Your task to perform on an android device: See recent photos Image 0: 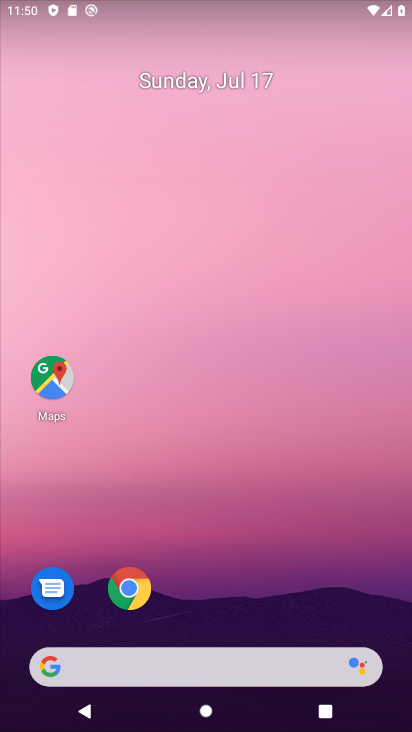
Step 0: drag from (248, 725) to (262, 109)
Your task to perform on an android device: See recent photos Image 1: 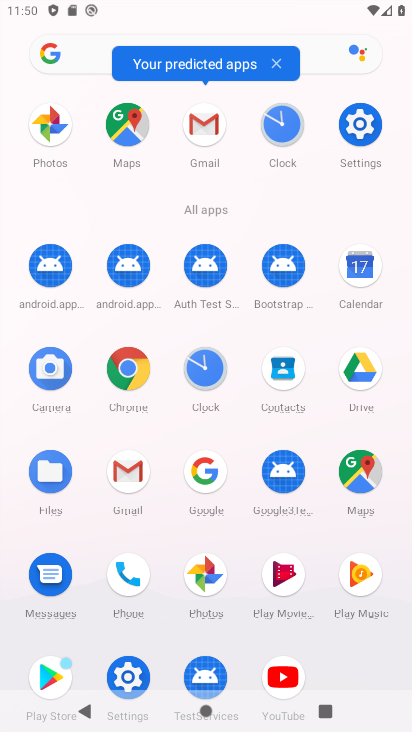
Step 1: click (207, 571)
Your task to perform on an android device: See recent photos Image 2: 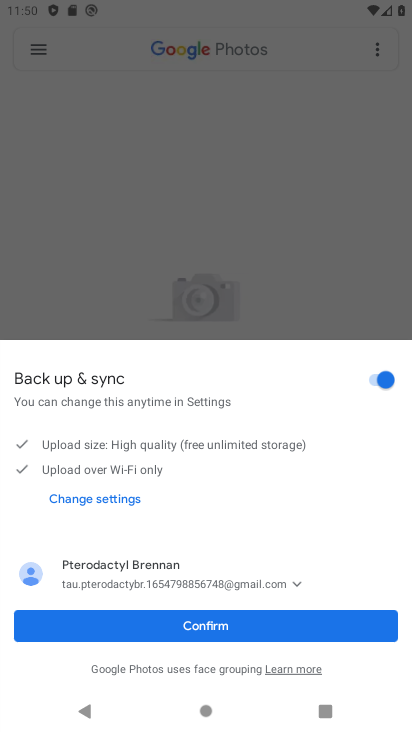
Step 2: click (191, 629)
Your task to perform on an android device: See recent photos Image 3: 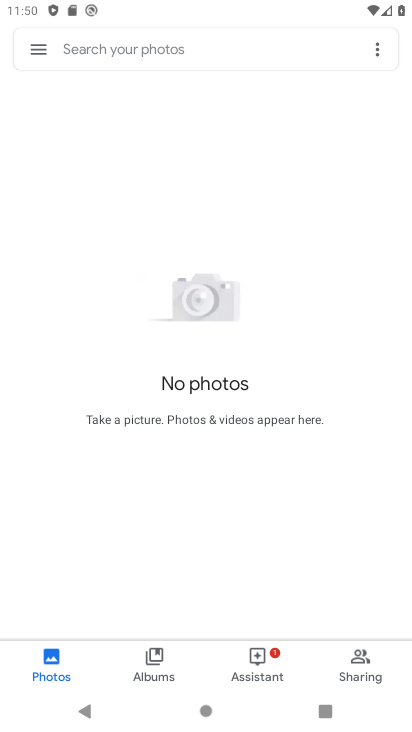
Step 3: task complete